Your task to perform on an android device: Go to Reddit.com Image 0: 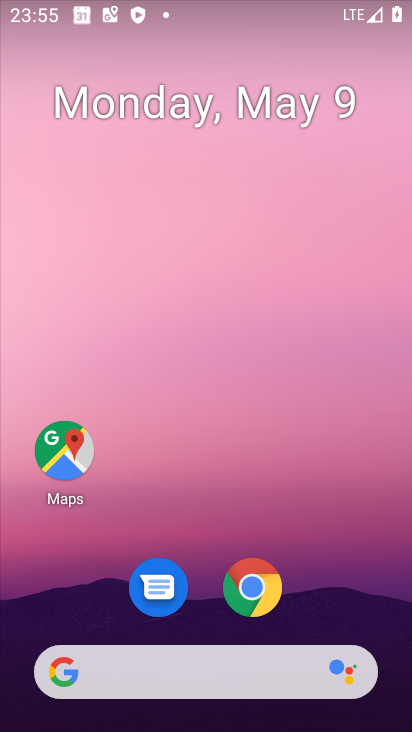
Step 0: click (181, 661)
Your task to perform on an android device: Go to Reddit.com Image 1: 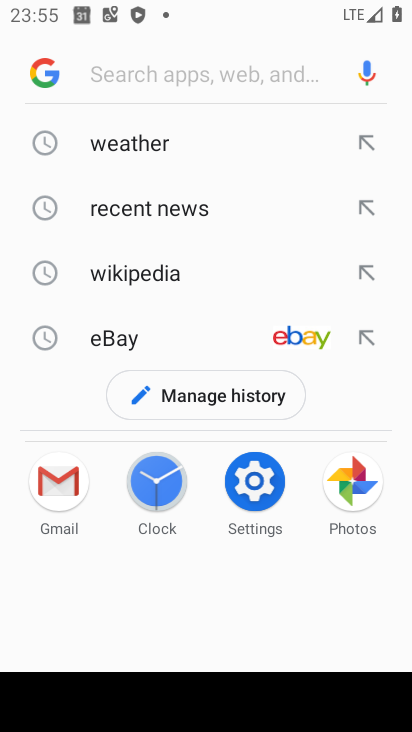
Step 1: click (154, 81)
Your task to perform on an android device: Go to Reddit.com Image 2: 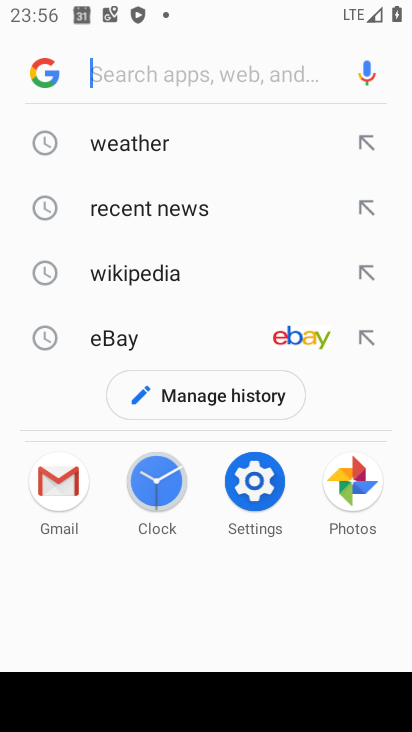
Step 2: type "reddit.com"
Your task to perform on an android device: Go to Reddit.com Image 3: 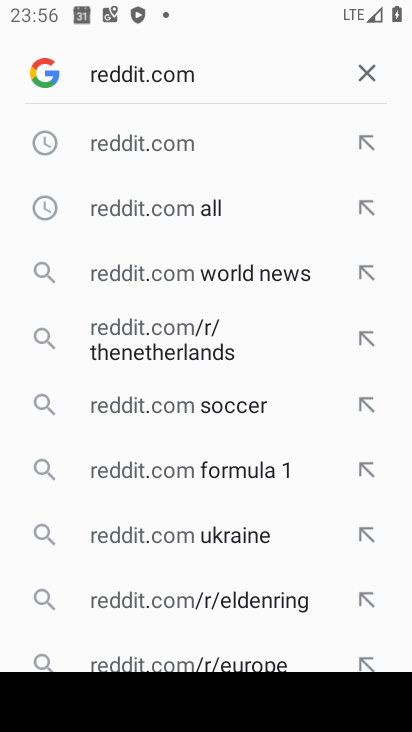
Step 3: click (218, 151)
Your task to perform on an android device: Go to Reddit.com Image 4: 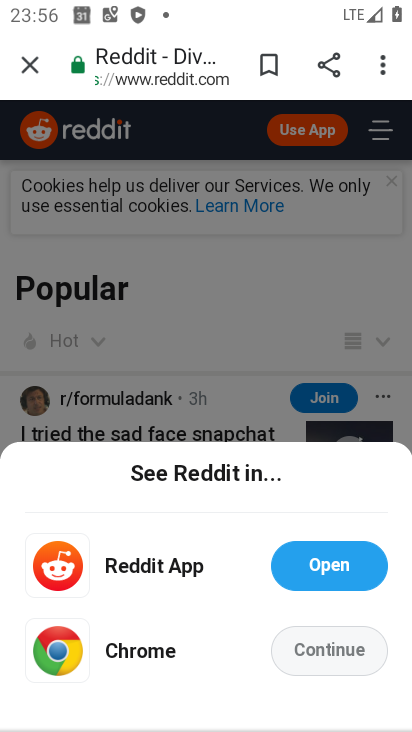
Step 4: task complete